Your task to perform on an android device: set the timer Image 0: 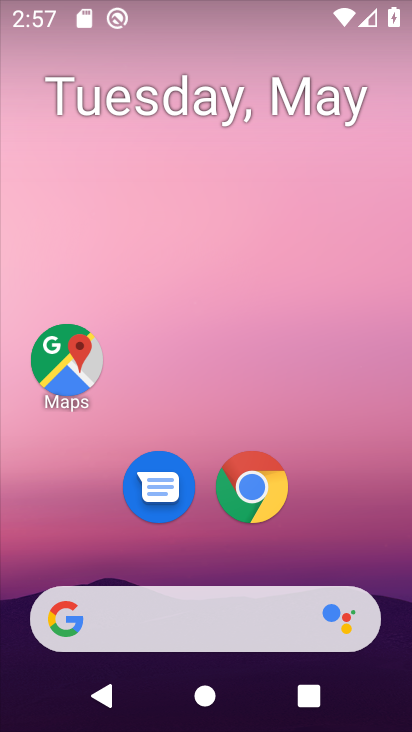
Step 0: drag from (383, 589) to (396, 302)
Your task to perform on an android device: set the timer Image 1: 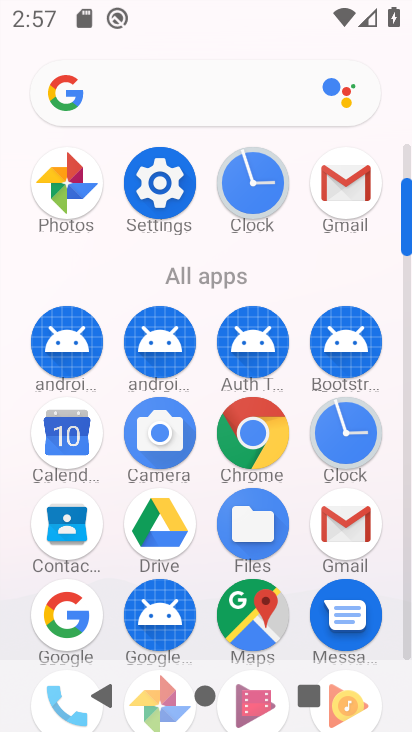
Step 1: click (246, 198)
Your task to perform on an android device: set the timer Image 2: 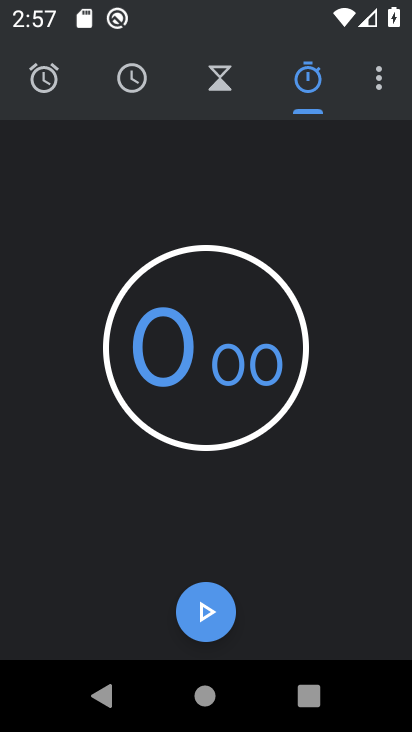
Step 2: click (210, 609)
Your task to perform on an android device: set the timer Image 3: 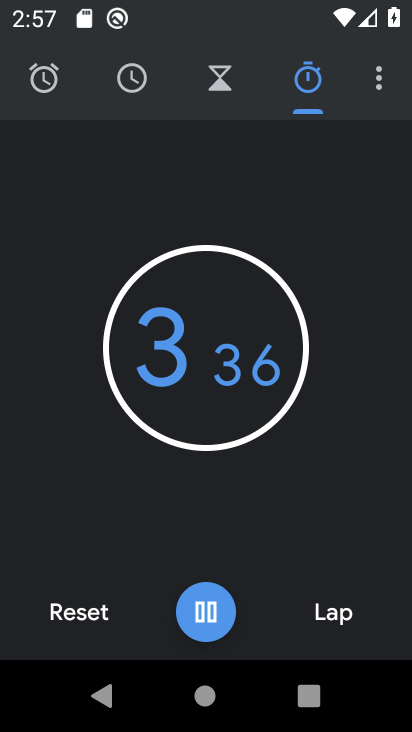
Step 3: task complete